Your task to perform on an android device: What is the recent news? Image 0: 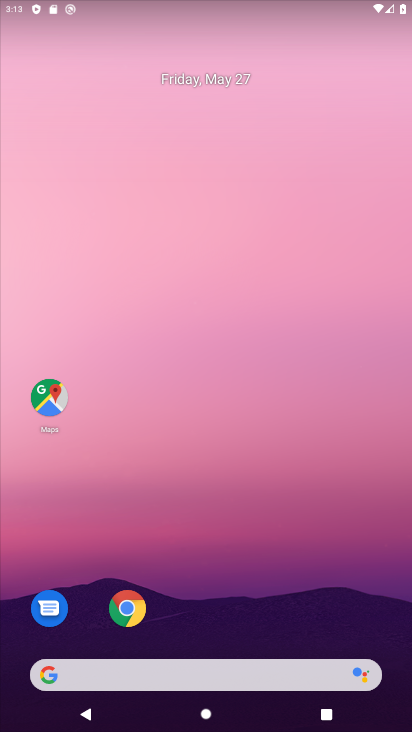
Step 0: drag from (184, 655) to (207, 284)
Your task to perform on an android device: What is the recent news? Image 1: 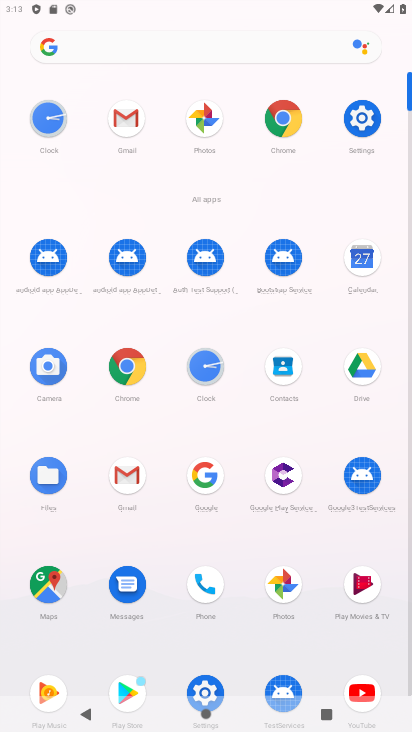
Step 1: click (207, 477)
Your task to perform on an android device: What is the recent news? Image 2: 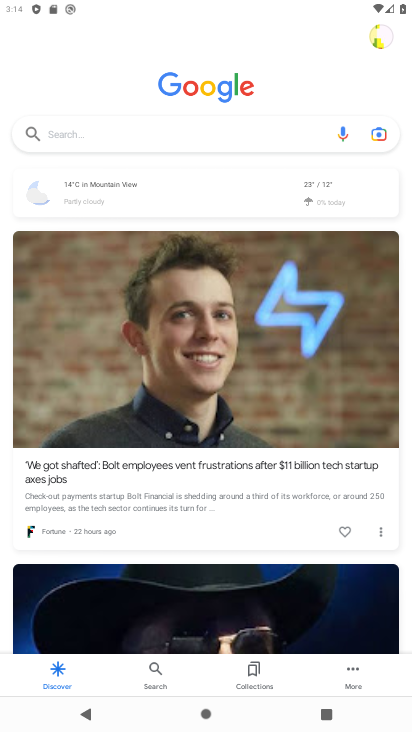
Step 2: click (163, 128)
Your task to perform on an android device: What is the recent news? Image 3: 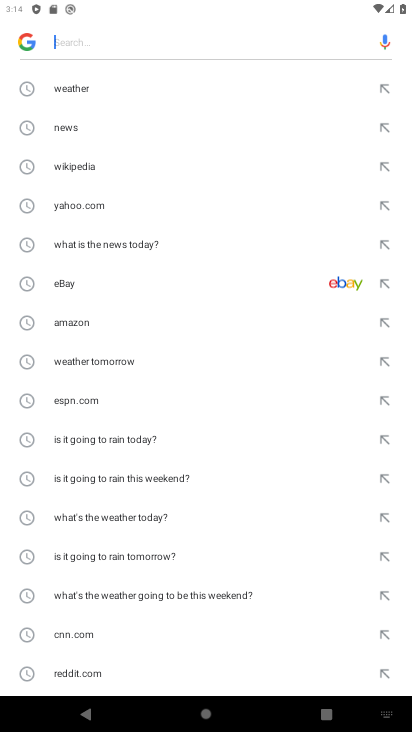
Step 3: drag from (120, 665) to (127, 225)
Your task to perform on an android device: What is the recent news? Image 4: 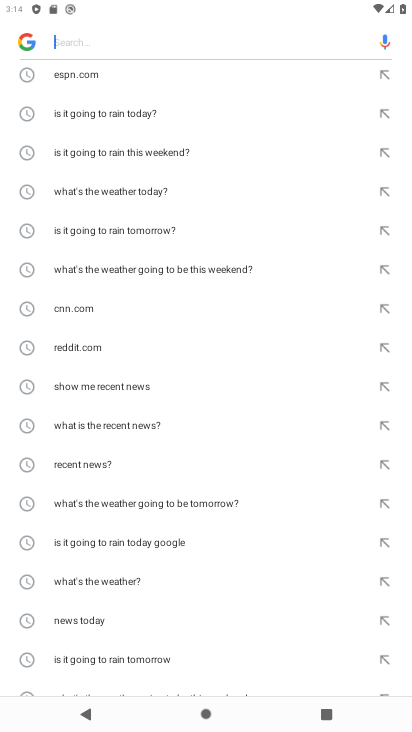
Step 4: click (75, 457)
Your task to perform on an android device: What is the recent news? Image 5: 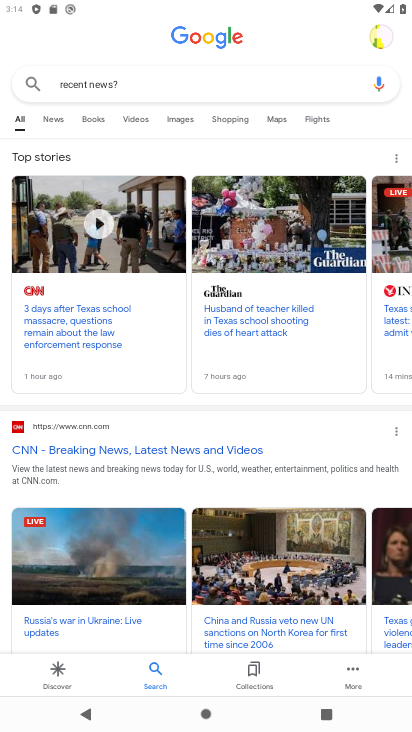
Step 5: task complete